Your task to perform on an android device: Open Google Chrome Image 0: 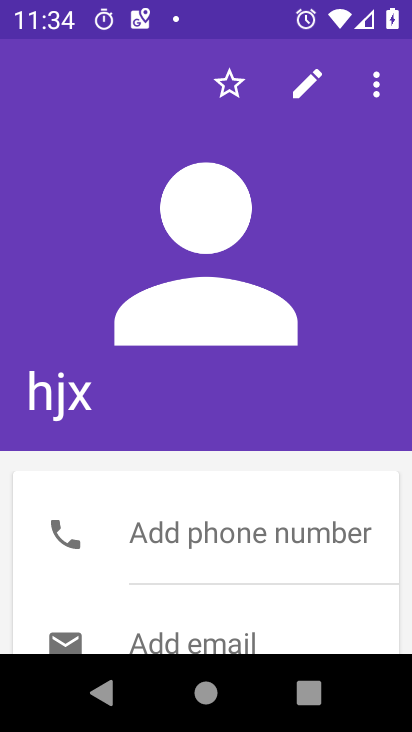
Step 0: press home button
Your task to perform on an android device: Open Google Chrome Image 1: 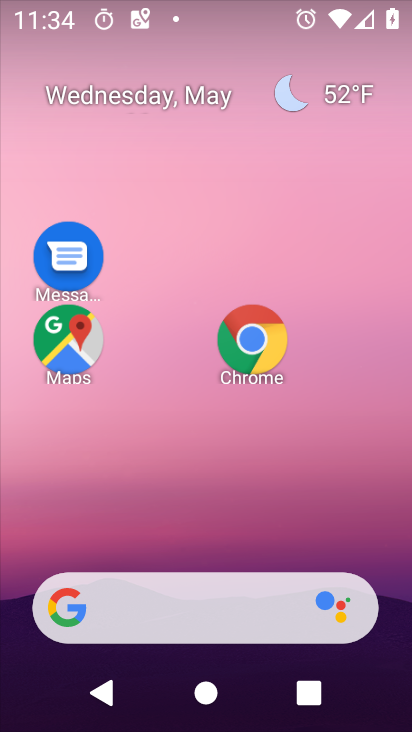
Step 1: click (251, 333)
Your task to perform on an android device: Open Google Chrome Image 2: 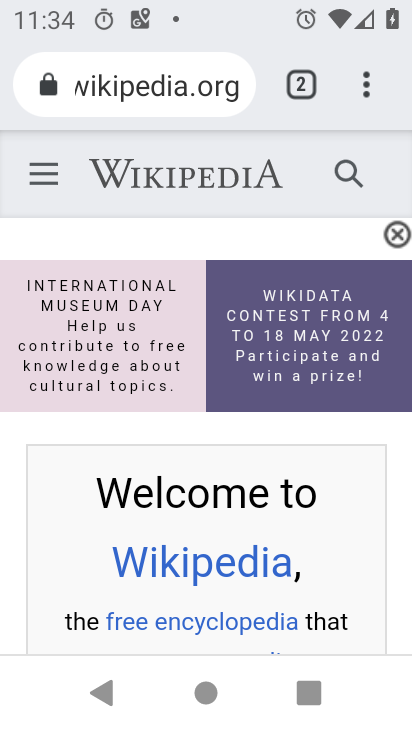
Step 2: task complete